Your task to perform on an android device: Go to CNN.com Image 0: 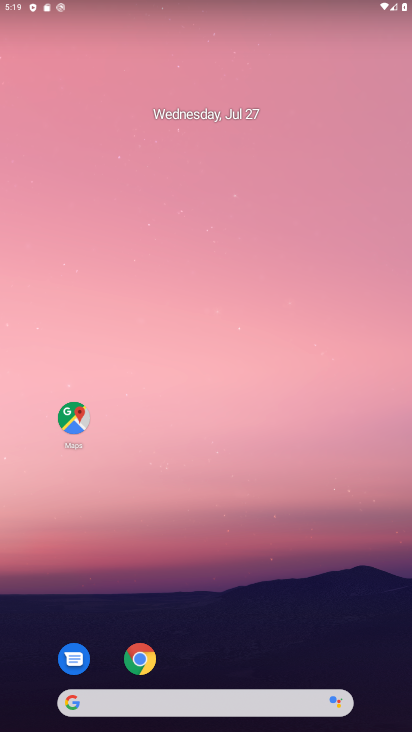
Step 0: click (133, 659)
Your task to perform on an android device: Go to CNN.com Image 1: 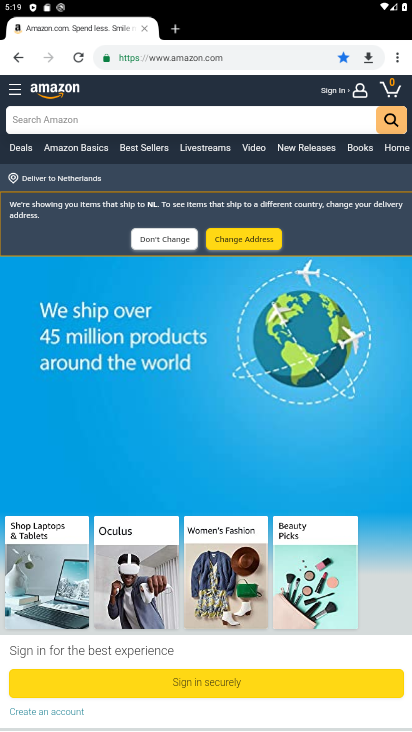
Step 1: click (199, 52)
Your task to perform on an android device: Go to CNN.com Image 2: 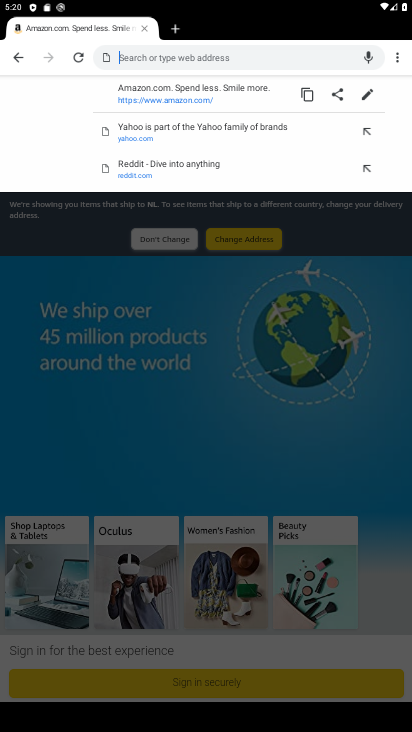
Step 2: type "CNN.com"
Your task to perform on an android device: Go to CNN.com Image 3: 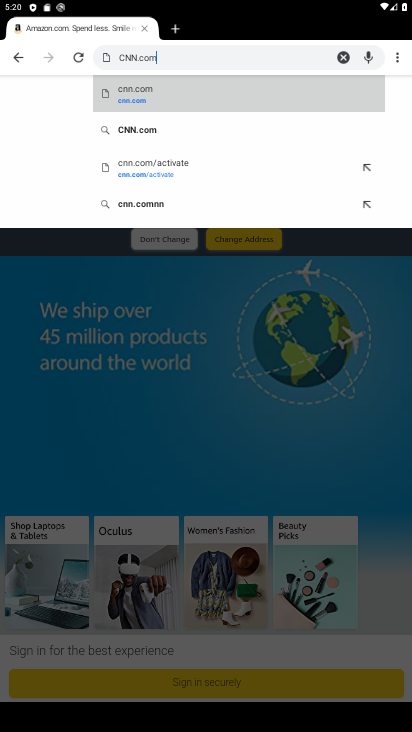
Step 3: type ""
Your task to perform on an android device: Go to CNN.com Image 4: 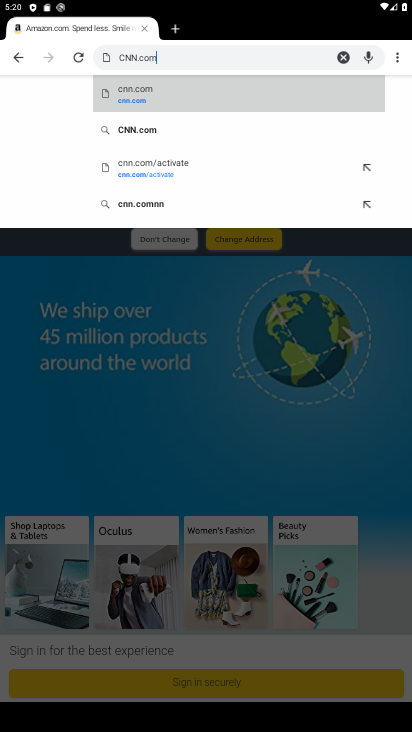
Step 4: click (122, 97)
Your task to perform on an android device: Go to CNN.com Image 5: 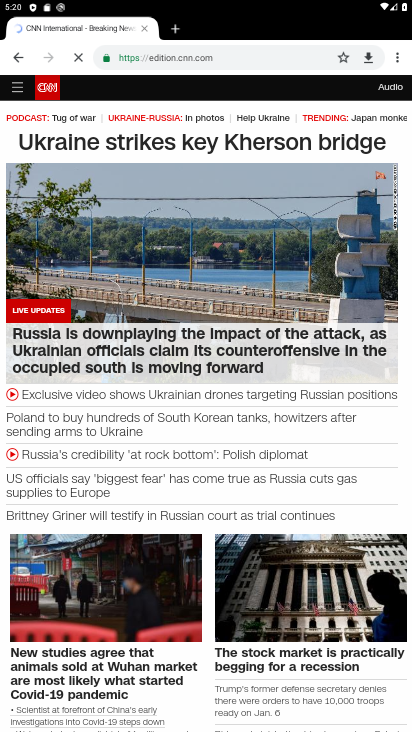
Step 5: task complete